Your task to perform on an android device: uninstall "Fetch Rewards" Image 0: 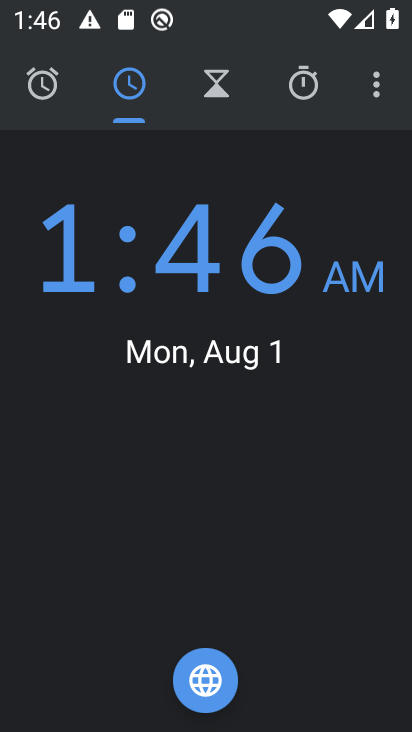
Step 0: press home button
Your task to perform on an android device: uninstall "Fetch Rewards" Image 1: 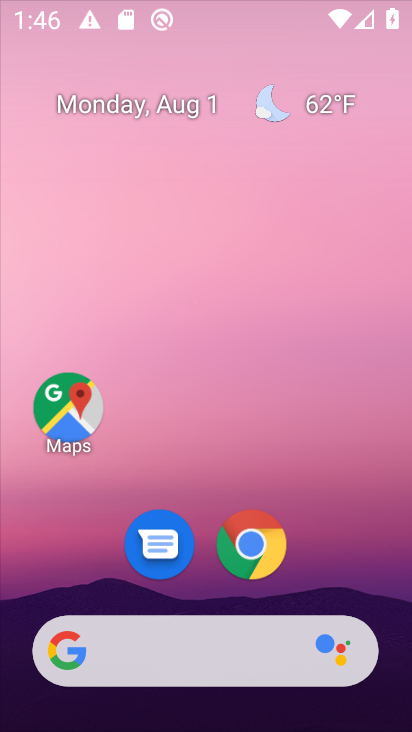
Step 1: drag from (375, 584) to (187, 75)
Your task to perform on an android device: uninstall "Fetch Rewards" Image 2: 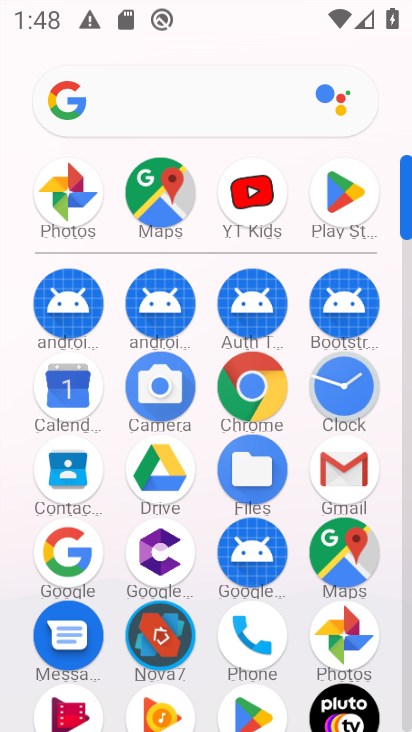
Step 2: click (338, 186)
Your task to perform on an android device: uninstall "Fetch Rewards" Image 3: 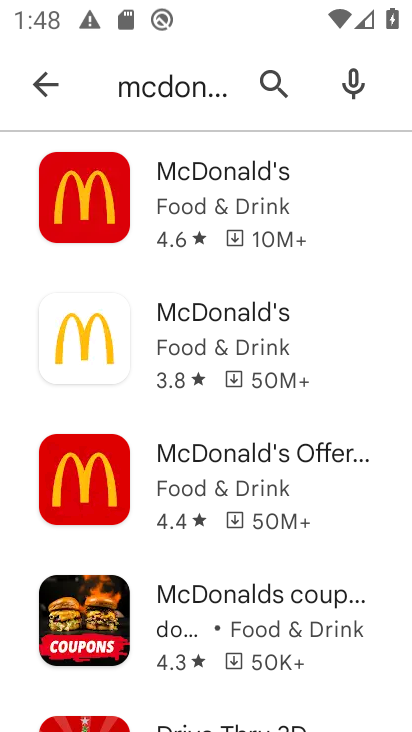
Step 3: press back button
Your task to perform on an android device: uninstall "Fetch Rewards" Image 4: 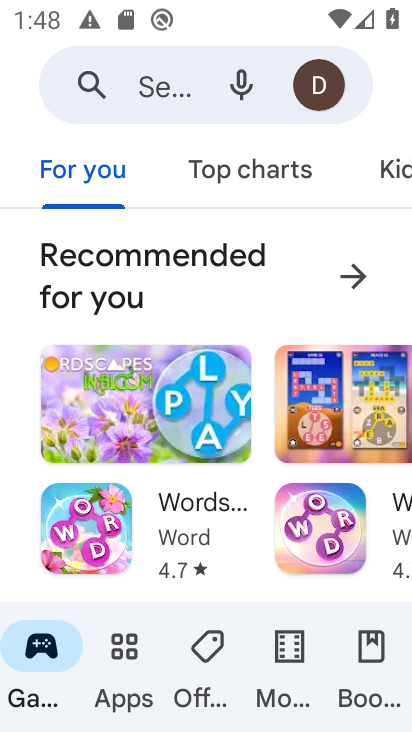
Step 4: click (164, 88)
Your task to perform on an android device: uninstall "Fetch Rewards" Image 5: 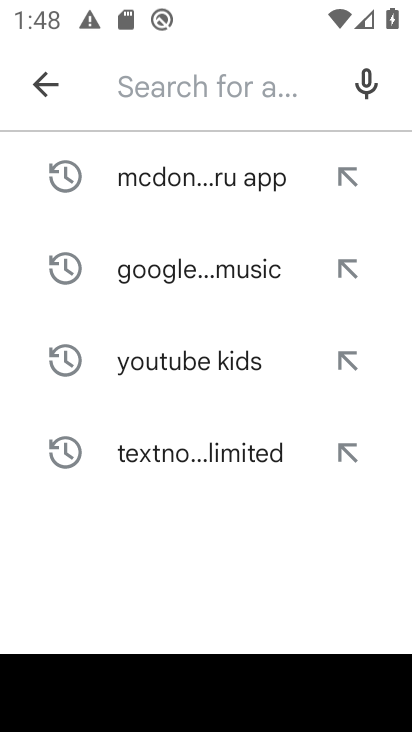
Step 5: type "Fetch Rewards"
Your task to perform on an android device: uninstall "Fetch Rewards" Image 6: 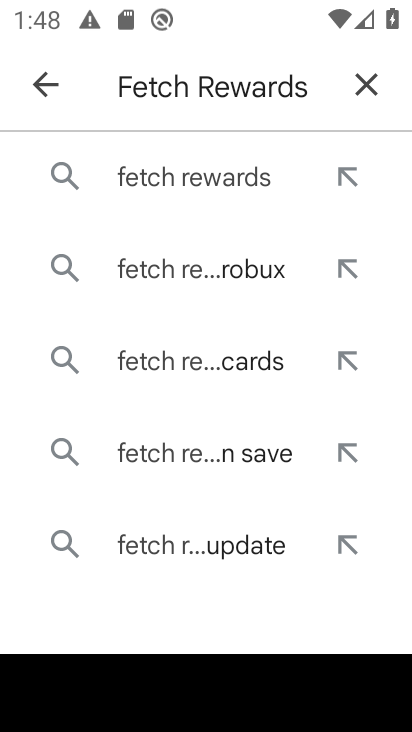
Step 6: click (135, 191)
Your task to perform on an android device: uninstall "Fetch Rewards" Image 7: 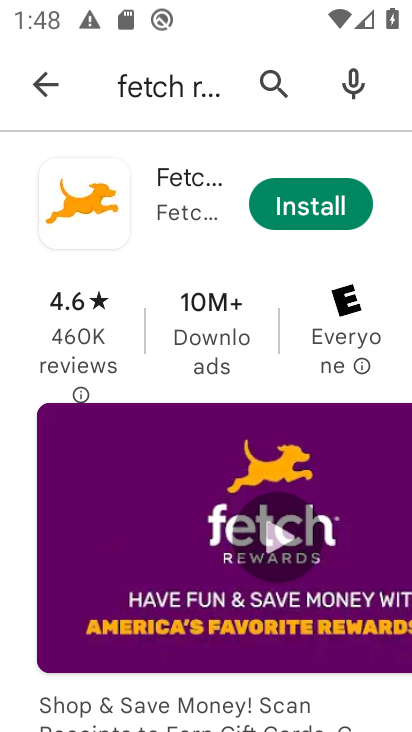
Step 7: task complete